Your task to perform on an android device: turn pop-ups on in chrome Image 0: 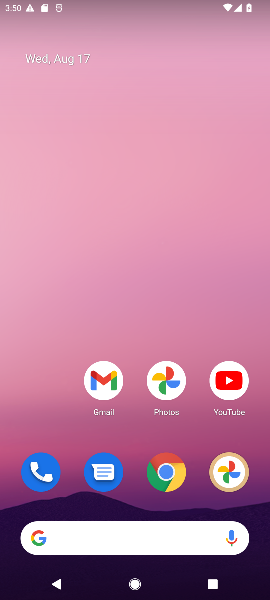
Step 0: drag from (146, 510) to (176, 231)
Your task to perform on an android device: turn pop-ups on in chrome Image 1: 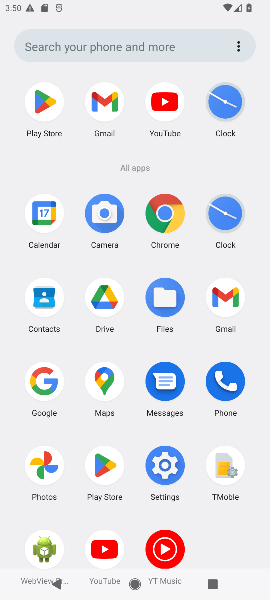
Step 1: click (162, 219)
Your task to perform on an android device: turn pop-ups on in chrome Image 2: 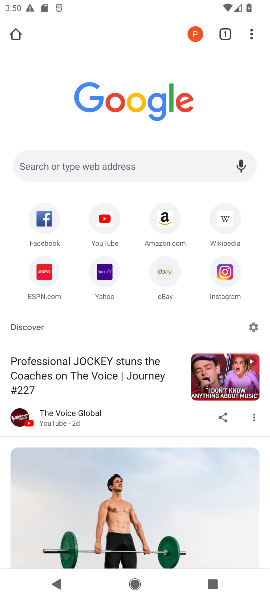
Step 2: click (252, 38)
Your task to perform on an android device: turn pop-ups on in chrome Image 3: 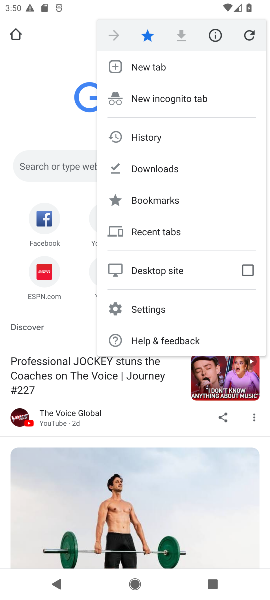
Step 3: click (150, 308)
Your task to perform on an android device: turn pop-ups on in chrome Image 4: 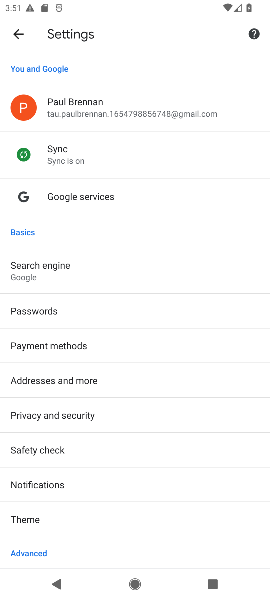
Step 4: drag from (72, 371) to (76, 272)
Your task to perform on an android device: turn pop-ups on in chrome Image 5: 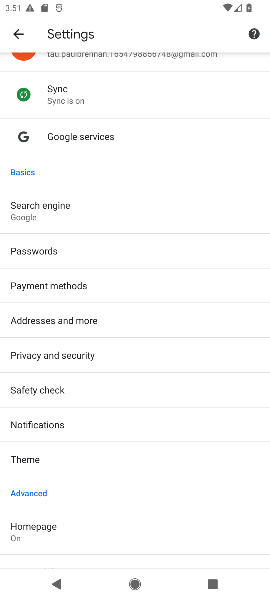
Step 5: drag from (55, 499) to (68, 317)
Your task to perform on an android device: turn pop-ups on in chrome Image 6: 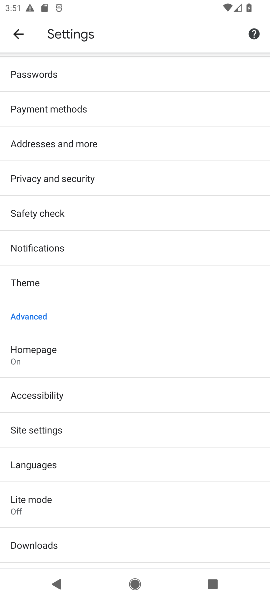
Step 6: click (50, 430)
Your task to perform on an android device: turn pop-ups on in chrome Image 7: 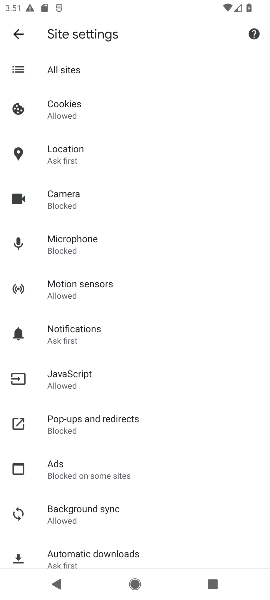
Step 7: click (105, 427)
Your task to perform on an android device: turn pop-ups on in chrome Image 8: 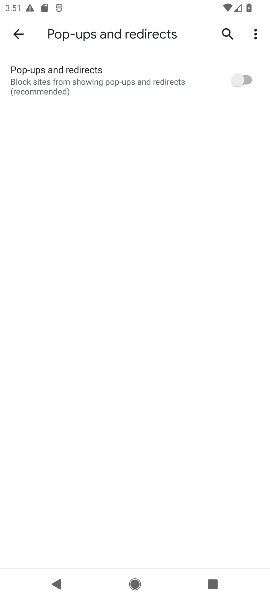
Step 8: click (252, 74)
Your task to perform on an android device: turn pop-ups on in chrome Image 9: 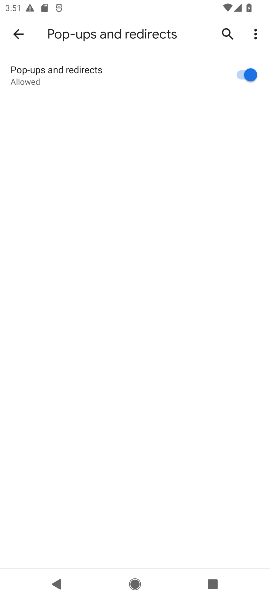
Step 9: task complete